Your task to perform on an android device: turn on the 24-hour format for clock Image 0: 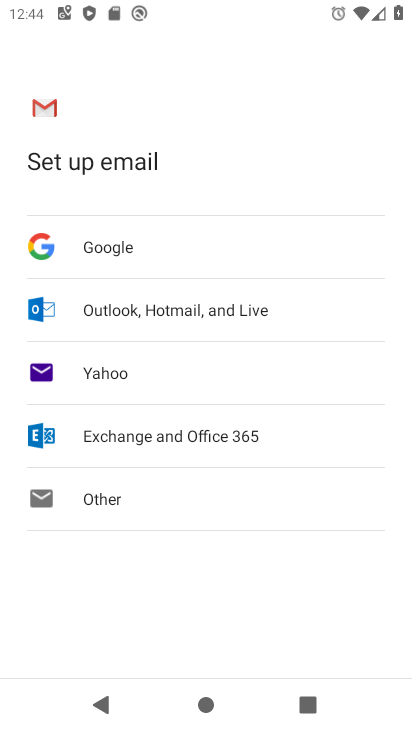
Step 0: press home button
Your task to perform on an android device: turn on the 24-hour format for clock Image 1: 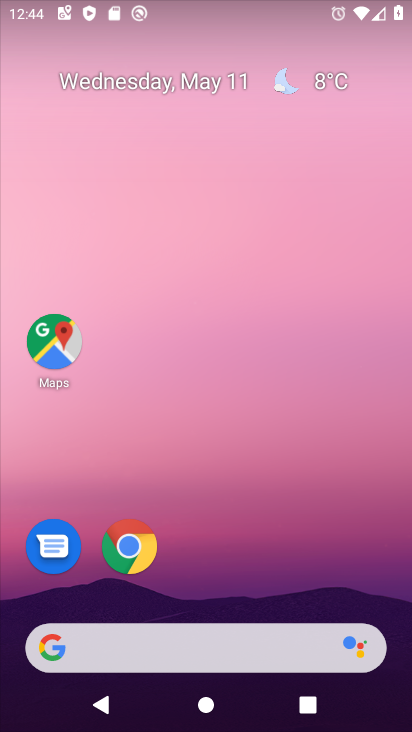
Step 1: drag from (249, 644) to (398, 114)
Your task to perform on an android device: turn on the 24-hour format for clock Image 2: 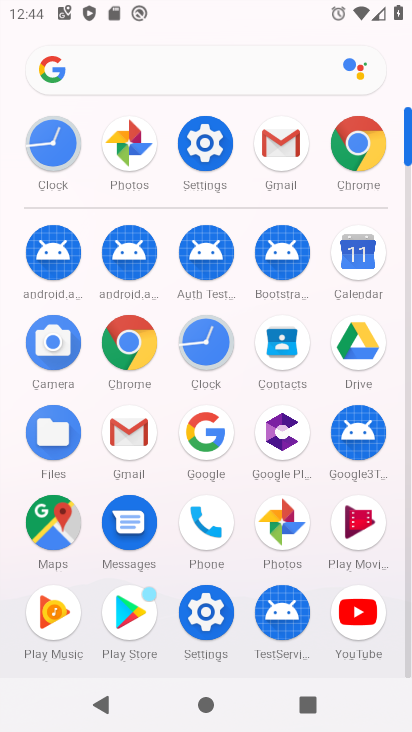
Step 2: click (213, 348)
Your task to perform on an android device: turn on the 24-hour format for clock Image 3: 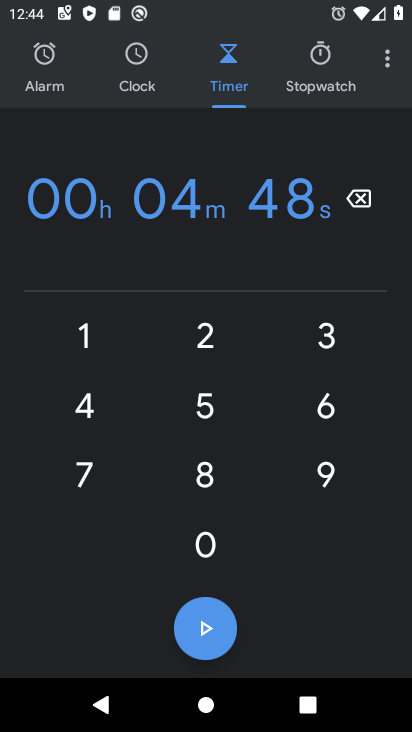
Step 3: click (388, 70)
Your task to perform on an android device: turn on the 24-hour format for clock Image 4: 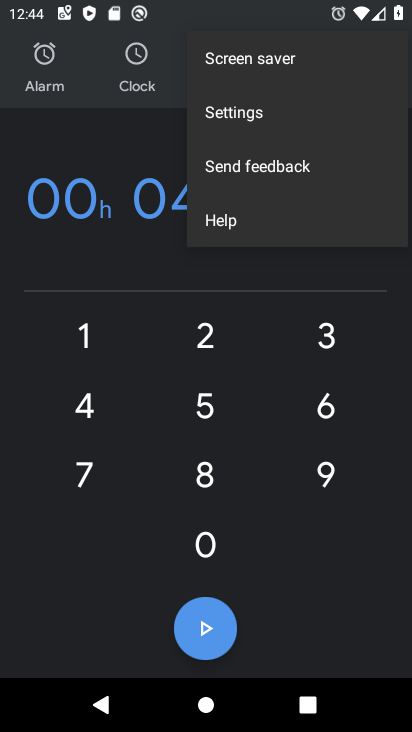
Step 4: click (295, 111)
Your task to perform on an android device: turn on the 24-hour format for clock Image 5: 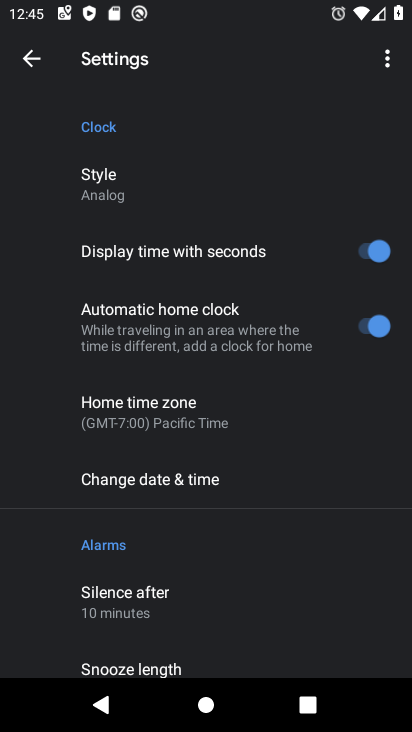
Step 5: click (192, 482)
Your task to perform on an android device: turn on the 24-hour format for clock Image 6: 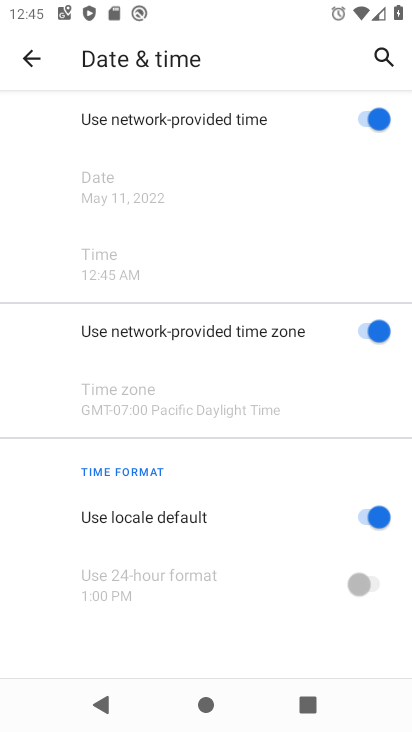
Step 6: click (365, 521)
Your task to perform on an android device: turn on the 24-hour format for clock Image 7: 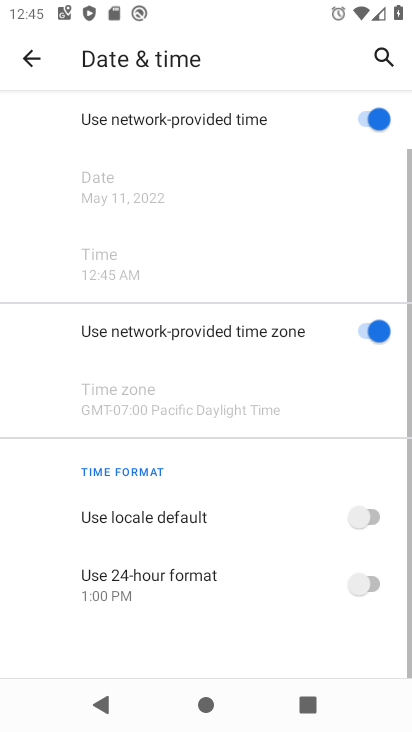
Step 7: click (373, 580)
Your task to perform on an android device: turn on the 24-hour format for clock Image 8: 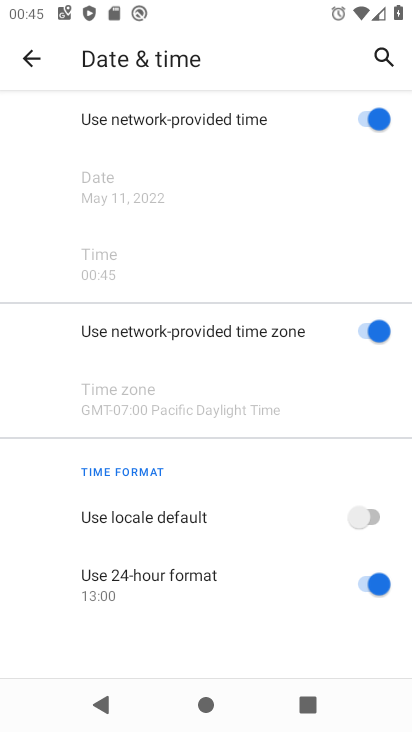
Step 8: task complete